Your task to perform on an android device: Open the phone app and click the voicemail tab. Image 0: 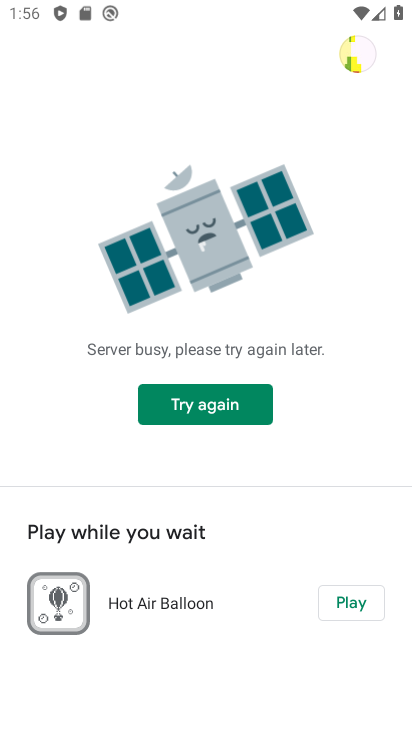
Step 0: press home button
Your task to perform on an android device: Open the phone app and click the voicemail tab. Image 1: 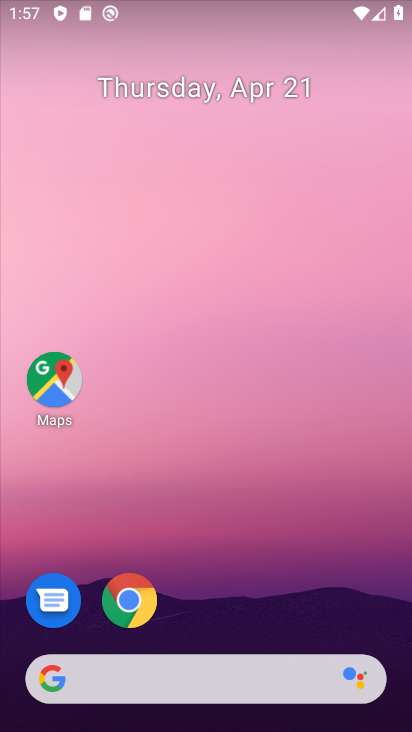
Step 1: drag from (370, 616) to (355, 58)
Your task to perform on an android device: Open the phone app and click the voicemail tab. Image 2: 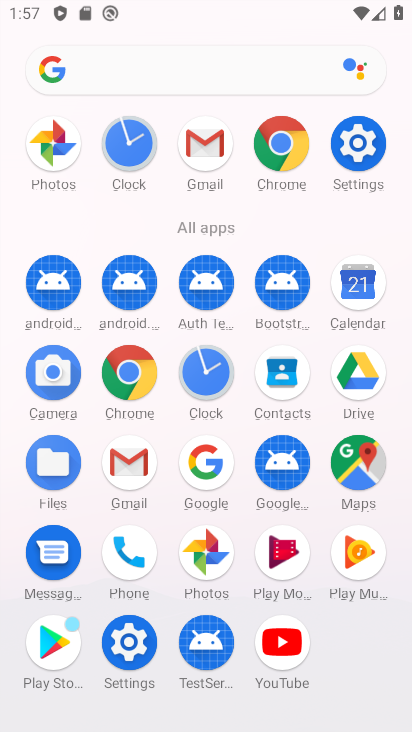
Step 2: click (128, 550)
Your task to perform on an android device: Open the phone app and click the voicemail tab. Image 3: 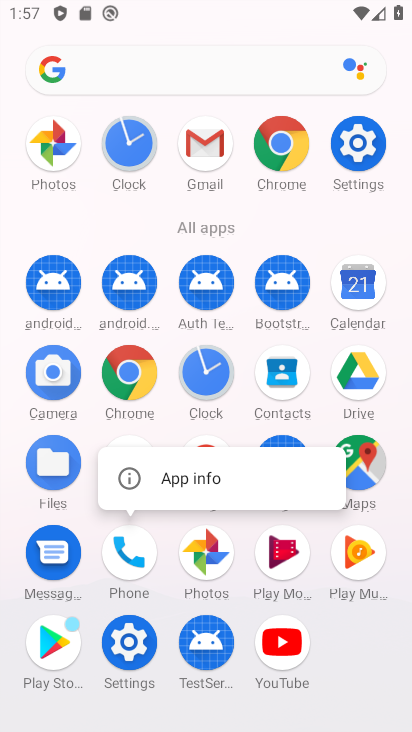
Step 3: click (138, 564)
Your task to perform on an android device: Open the phone app and click the voicemail tab. Image 4: 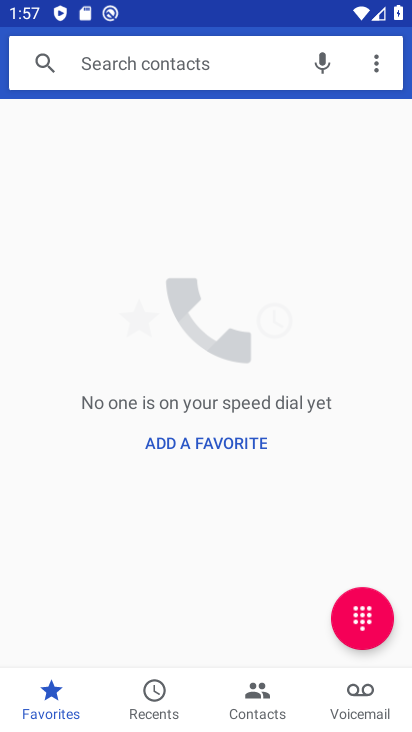
Step 4: click (355, 688)
Your task to perform on an android device: Open the phone app and click the voicemail tab. Image 5: 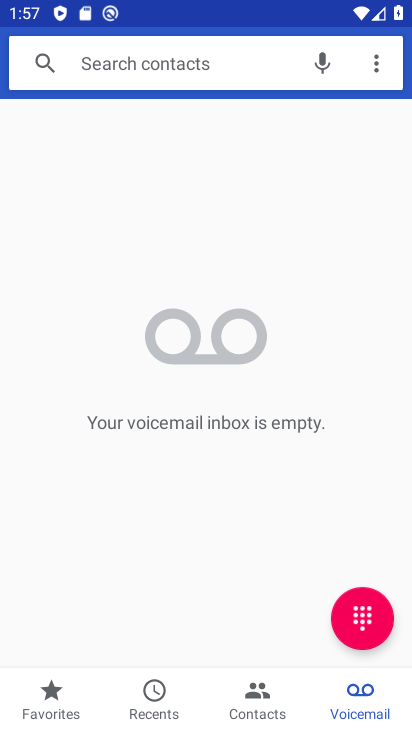
Step 5: task complete